Your task to perform on an android device: turn on data saver in the chrome app Image 0: 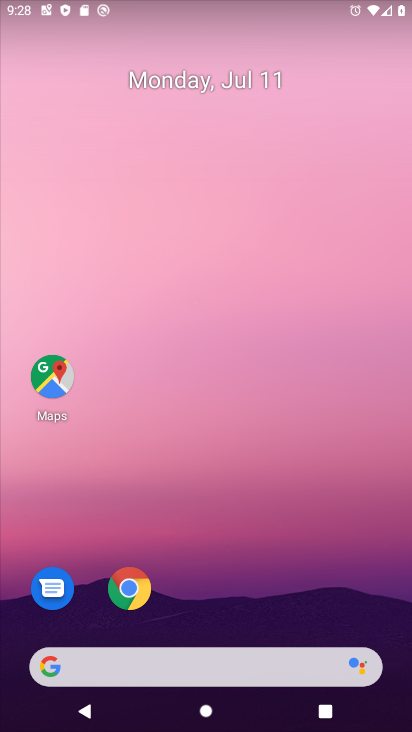
Step 0: click (112, 570)
Your task to perform on an android device: turn on data saver in the chrome app Image 1: 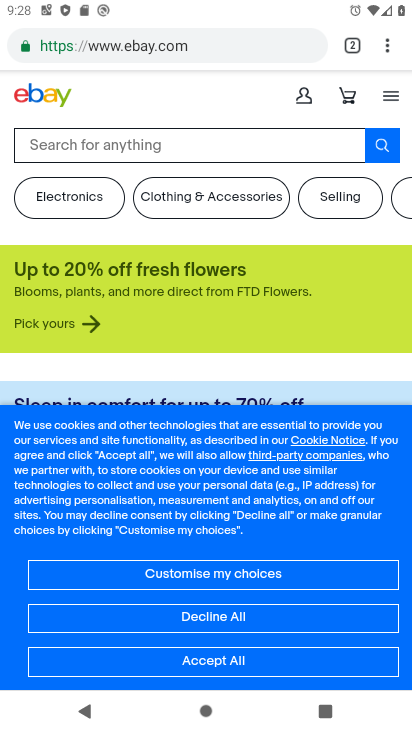
Step 1: click (387, 49)
Your task to perform on an android device: turn on data saver in the chrome app Image 2: 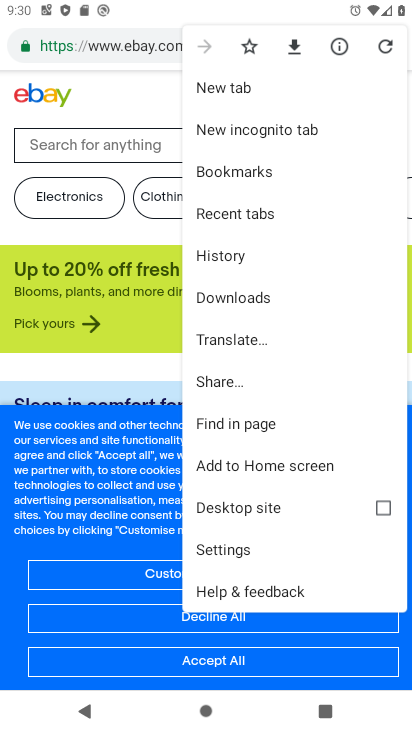
Step 2: click (254, 548)
Your task to perform on an android device: turn on data saver in the chrome app Image 3: 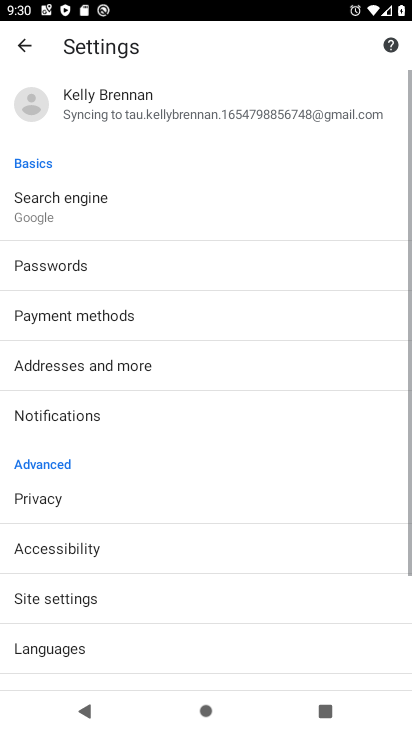
Step 3: drag from (171, 650) to (236, 96)
Your task to perform on an android device: turn on data saver in the chrome app Image 4: 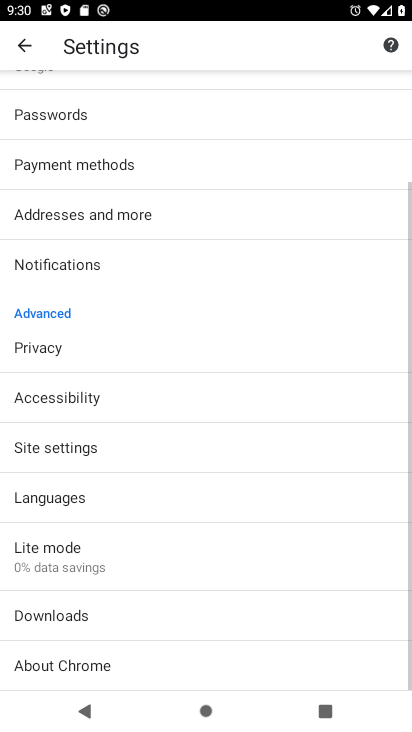
Step 4: click (83, 558)
Your task to perform on an android device: turn on data saver in the chrome app Image 5: 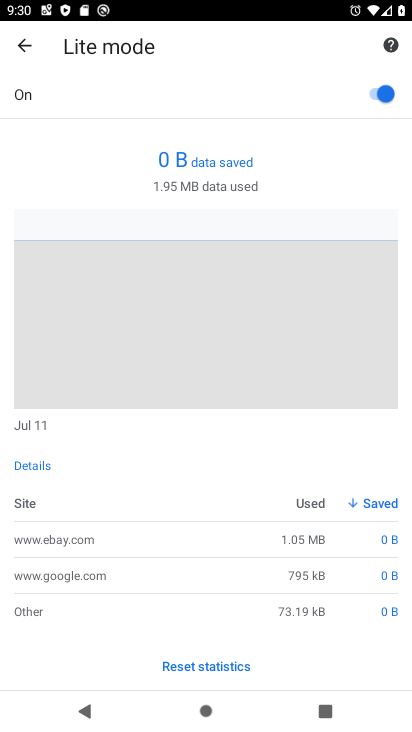
Step 5: task complete